Your task to perform on an android device: open app "Pinterest" Image 0: 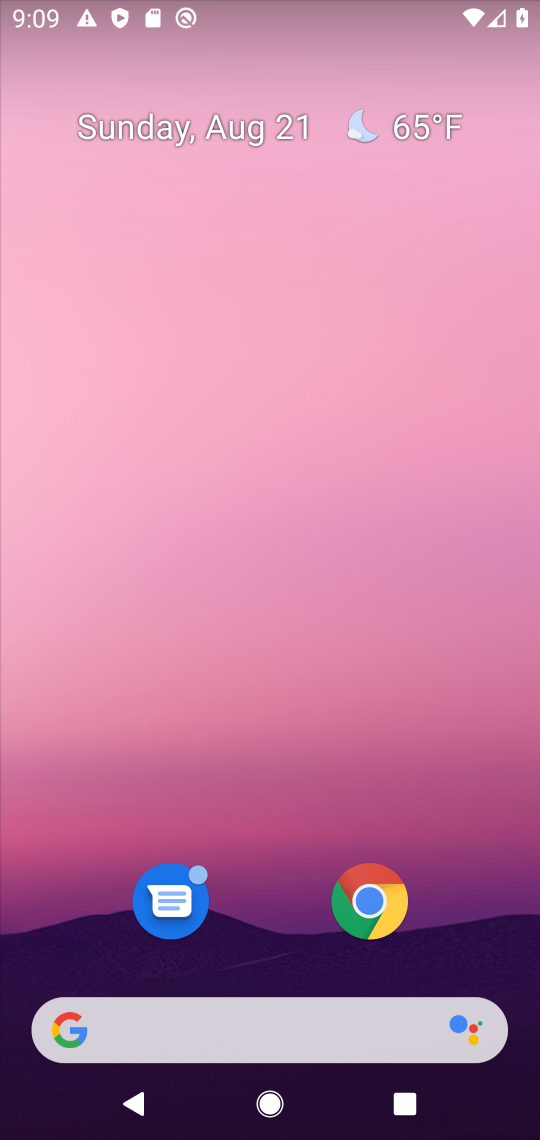
Step 0: drag from (486, 932) to (469, 73)
Your task to perform on an android device: open app "Pinterest" Image 1: 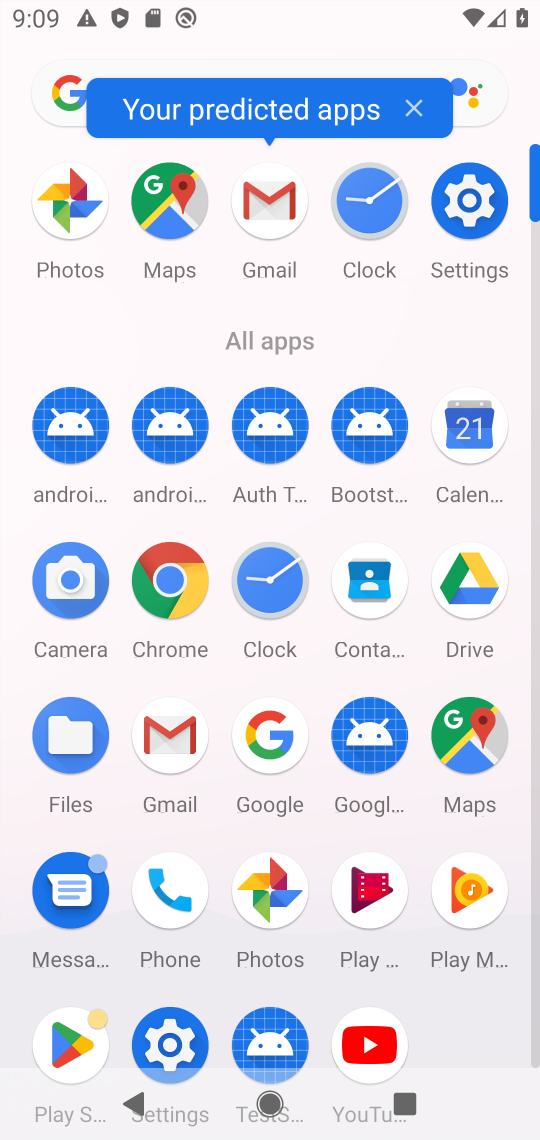
Step 1: click (69, 1051)
Your task to perform on an android device: open app "Pinterest" Image 2: 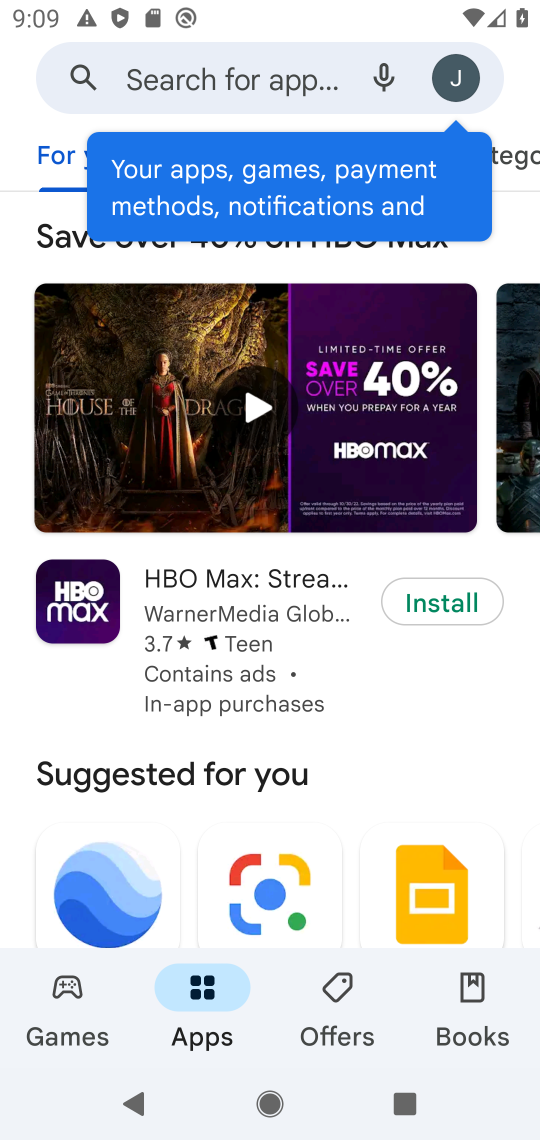
Step 2: click (247, 72)
Your task to perform on an android device: open app "Pinterest" Image 3: 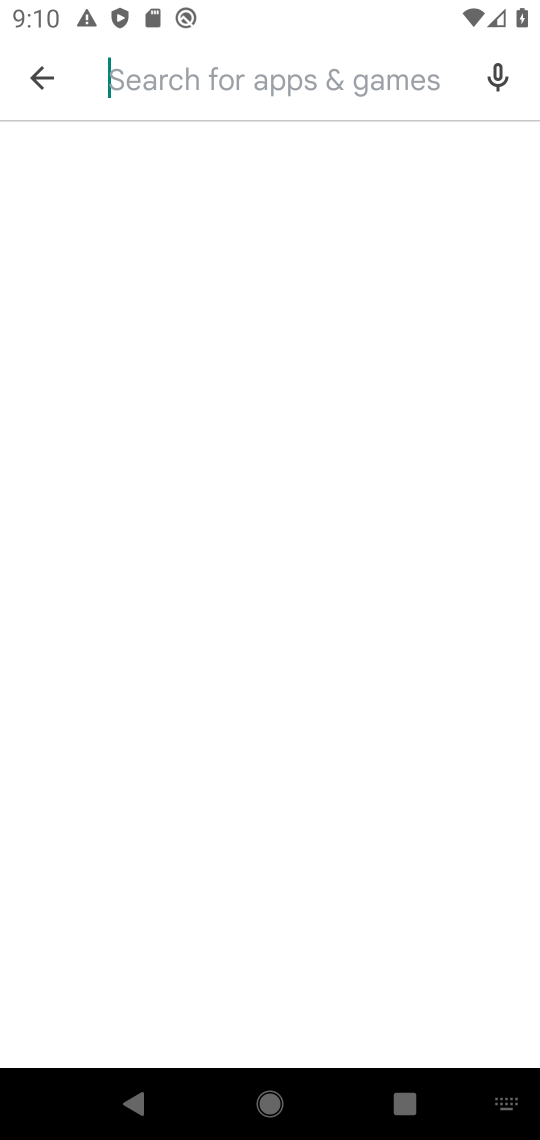
Step 3: press enter
Your task to perform on an android device: open app "Pinterest" Image 4: 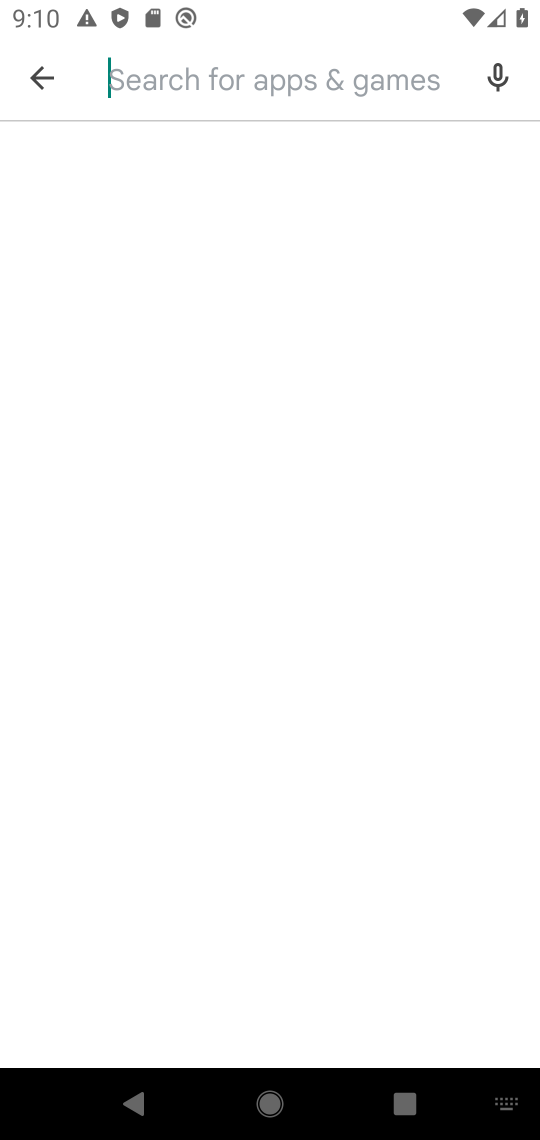
Step 4: type "pinterest"
Your task to perform on an android device: open app "Pinterest" Image 5: 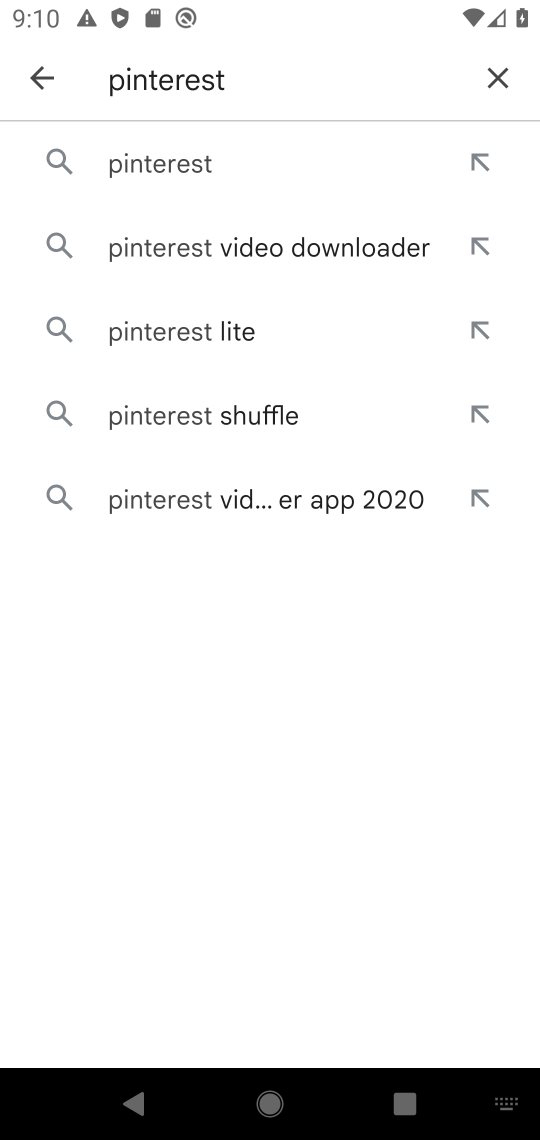
Step 5: click (206, 178)
Your task to perform on an android device: open app "Pinterest" Image 6: 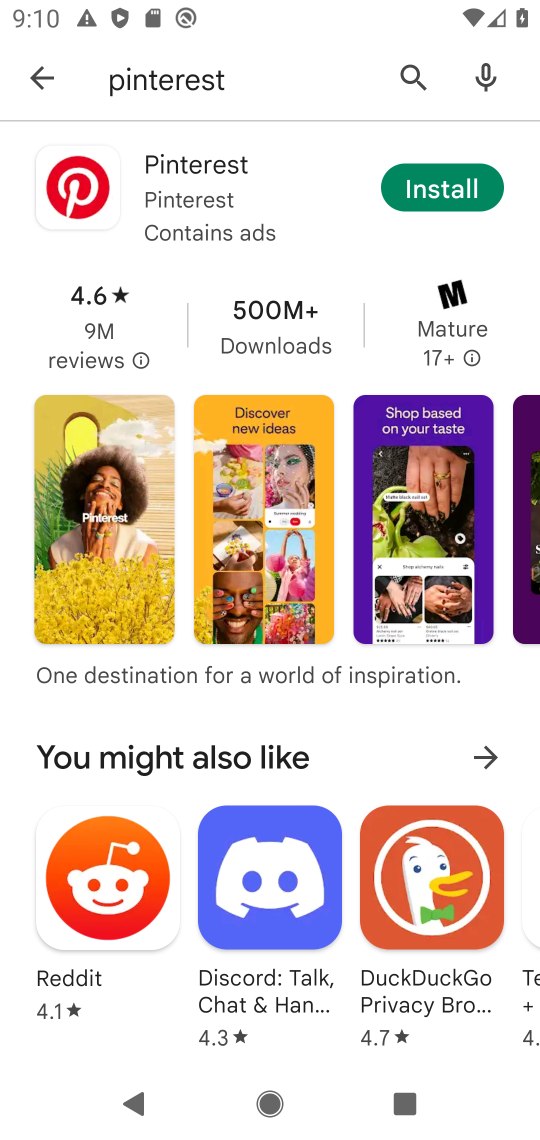
Step 6: task complete